Your task to perform on an android device: Open sound settings Image 0: 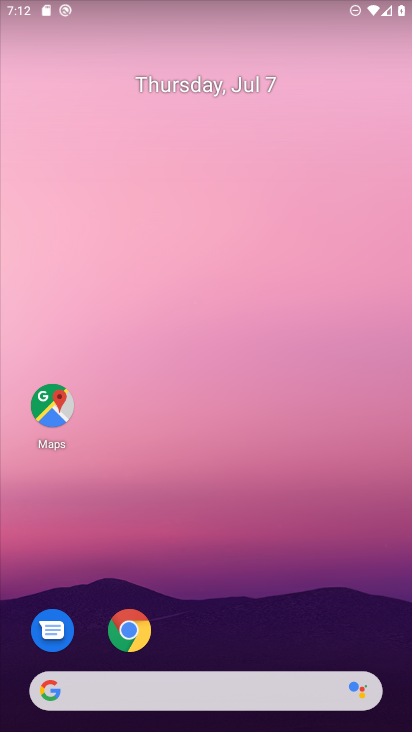
Step 0: drag from (269, 579) to (194, 158)
Your task to perform on an android device: Open sound settings Image 1: 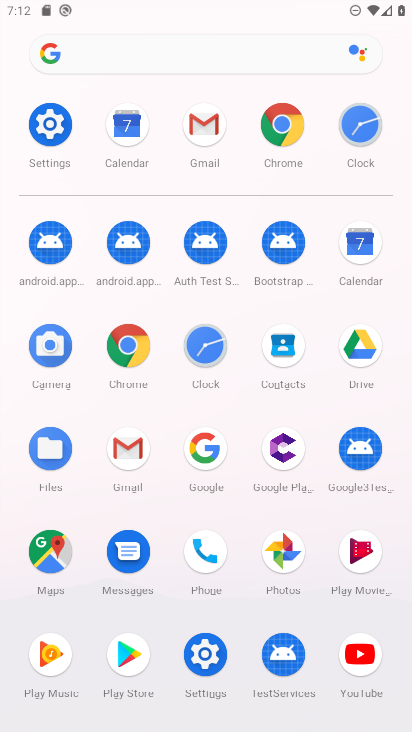
Step 1: click (45, 123)
Your task to perform on an android device: Open sound settings Image 2: 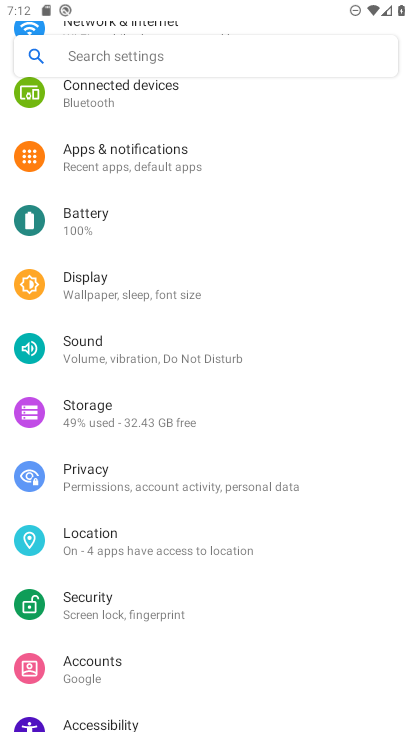
Step 2: click (92, 344)
Your task to perform on an android device: Open sound settings Image 3: 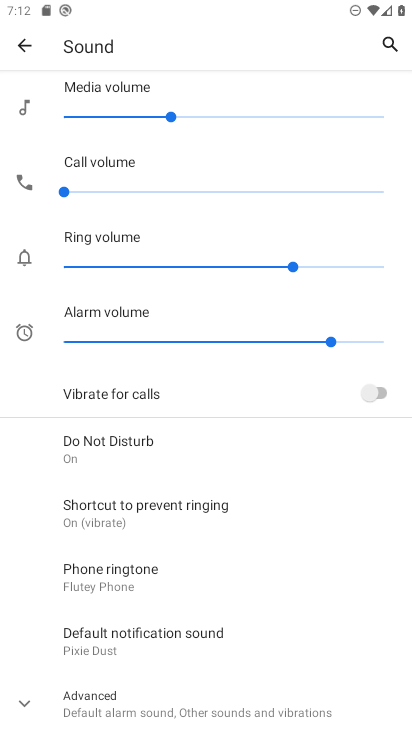
Step 3: task complete